Your task to perform on an android device: Search for a new eyeshadow Image 0: 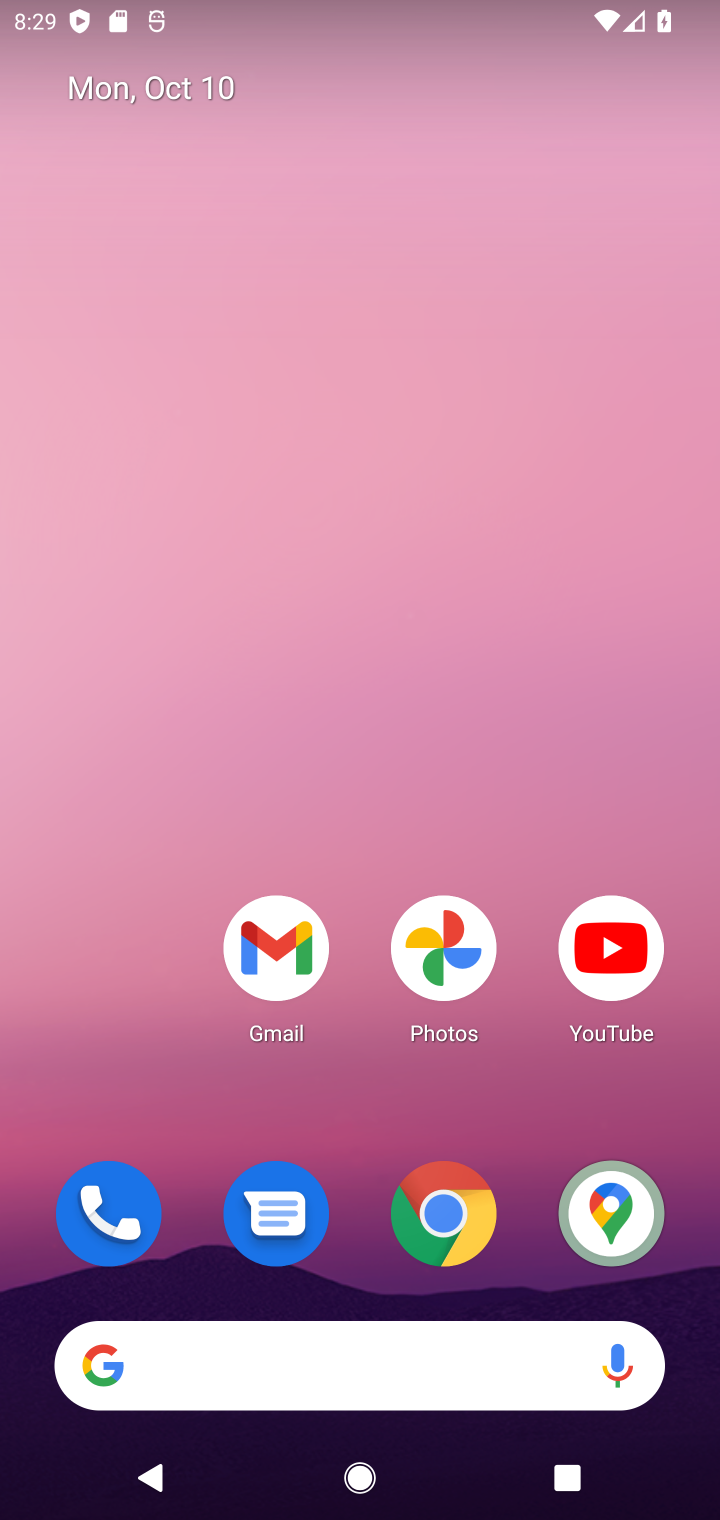
Step 0: click (300, 1405)
Your task to perform on an android device: Search for a new eyeshadow Image 1: 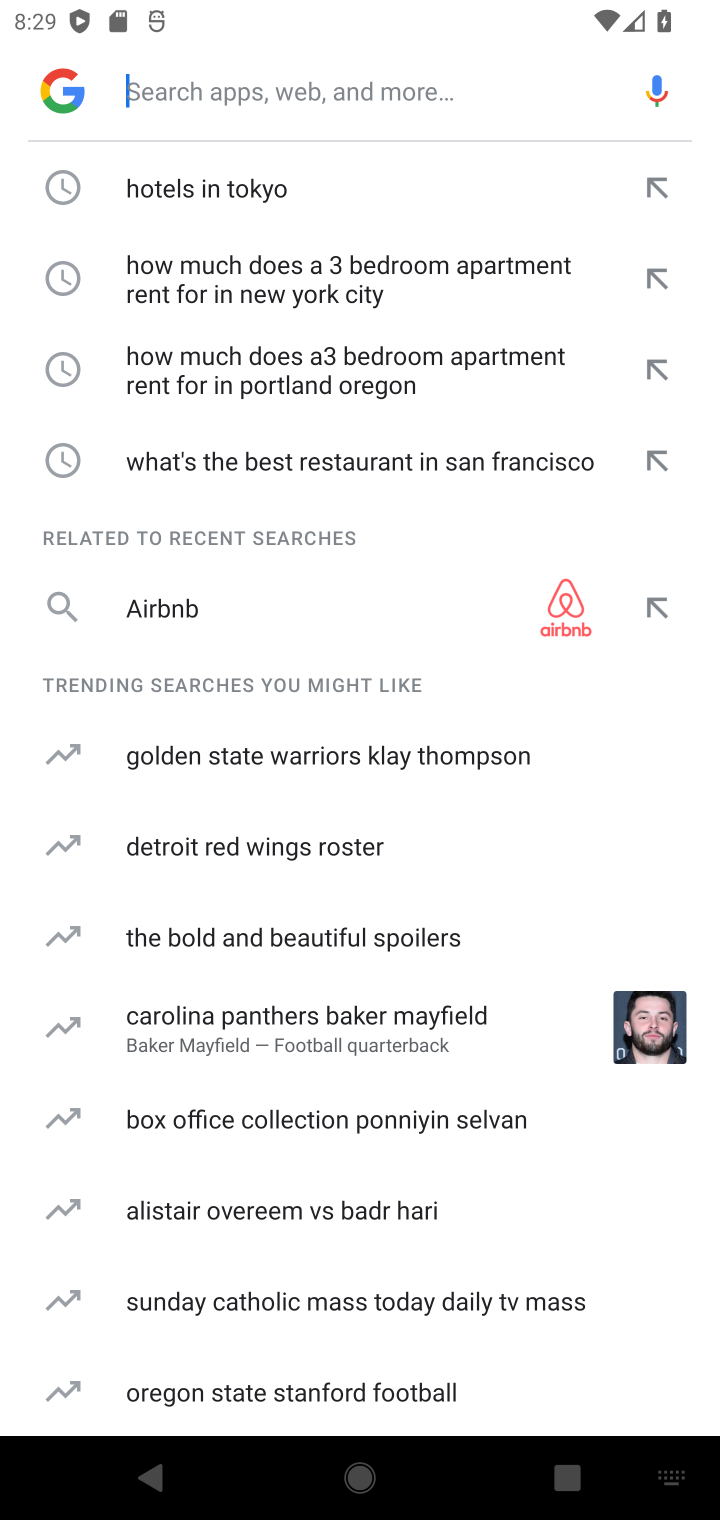
Step 1: click (238, 109)
Your task to perform on an android device: Search for a new eyeshadow Image 2: 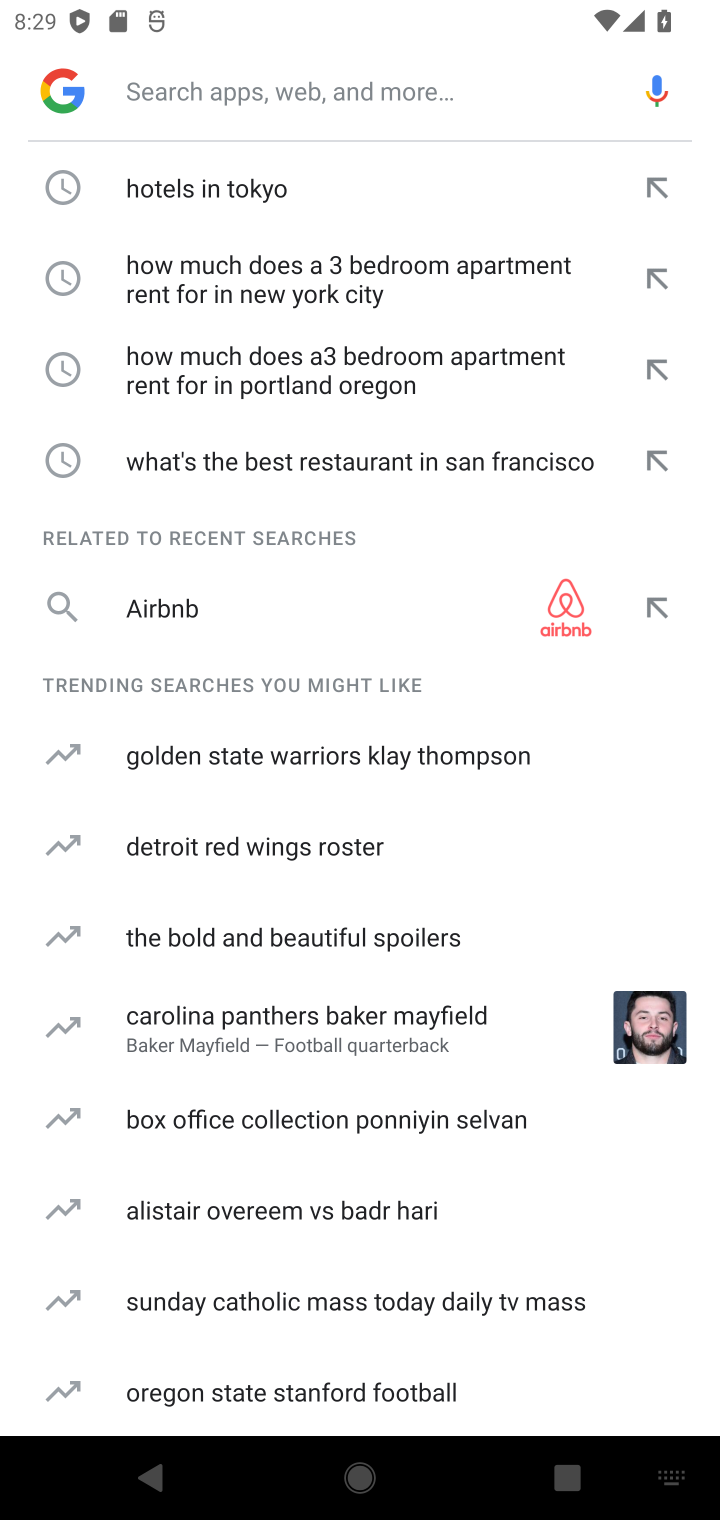
Step 2: type "new eyeshadow"
Your task to perform on an android device: Search for a new eyeshadow Image 3: 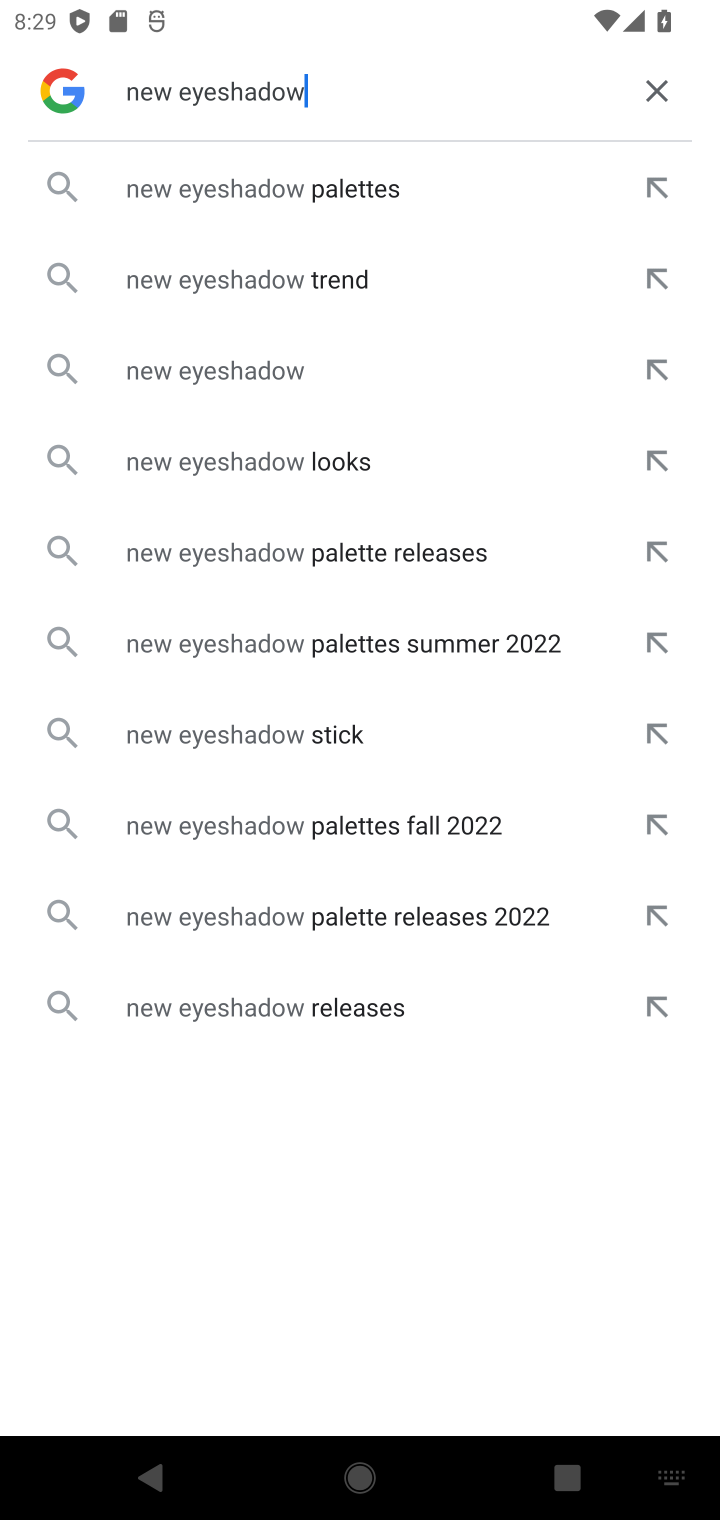
Step 3: click (223, 369)
Your task to perform on an android device: Search for a new eyeshadow Image 4: 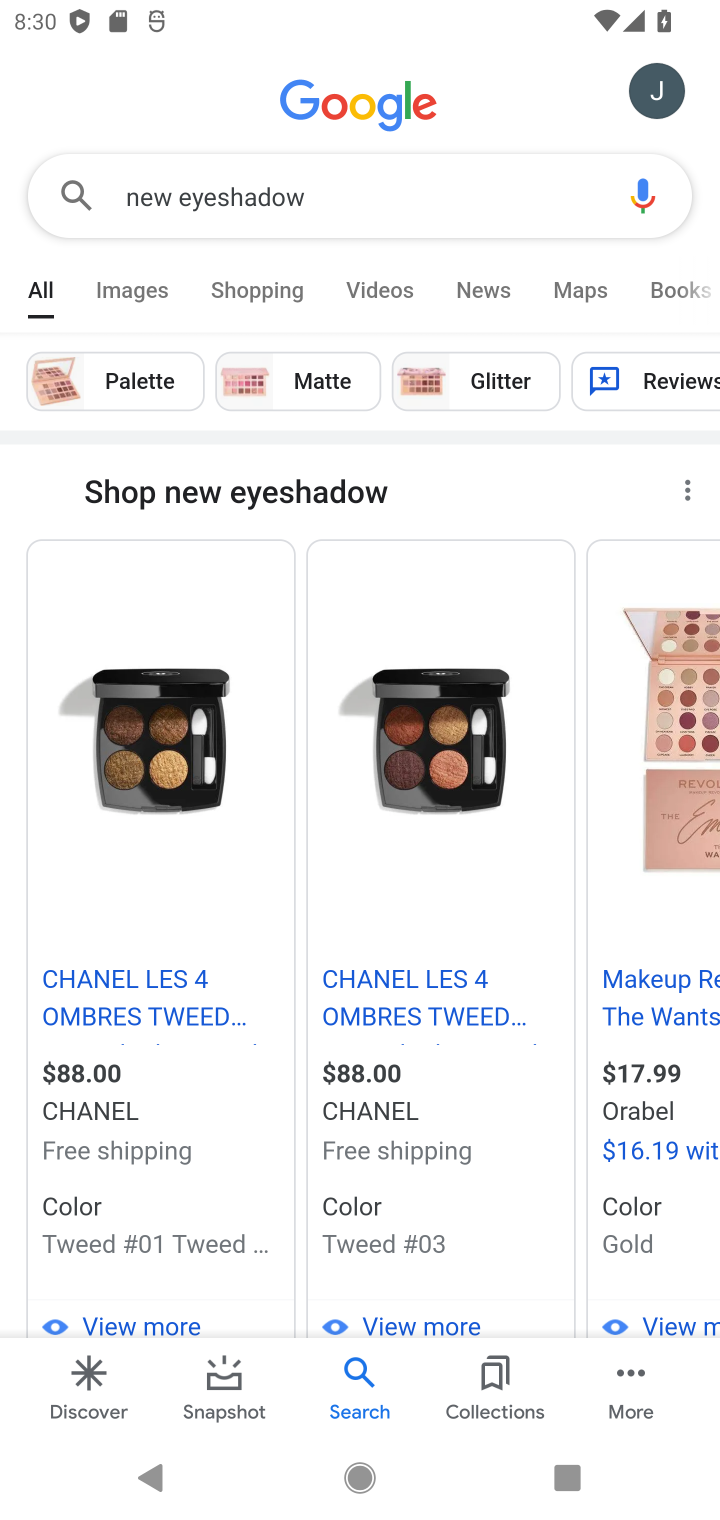
Step 4: task complete